Your task to perform on an android device: Open display settings Image 0: 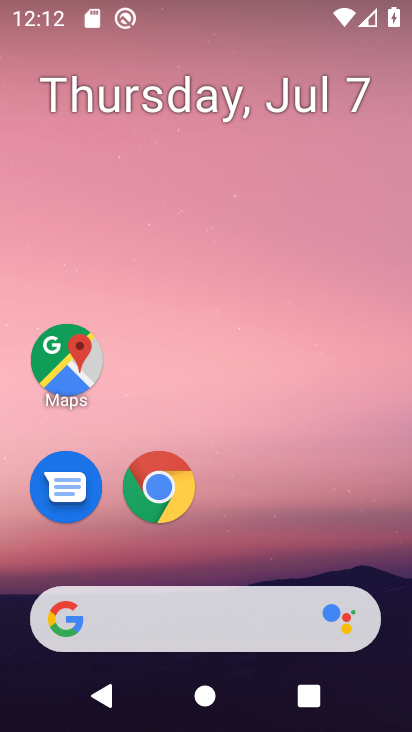
Step 0: drag from (304, 531) to (328, 134)
Your task to perform on an android device: Open display settings Image 1: 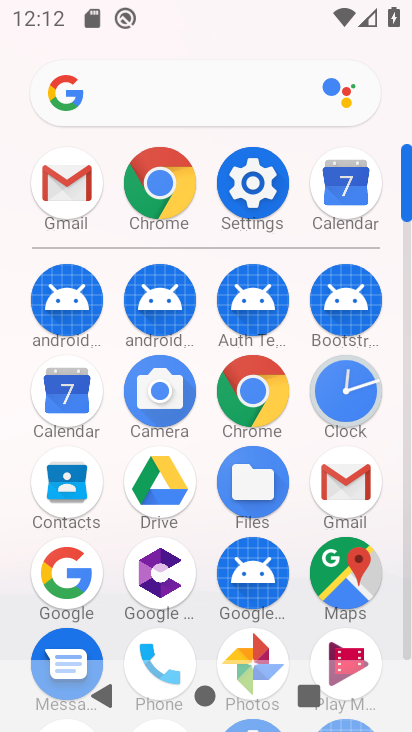
Step 1: click (251, 183)
Your task to perform on an android device: Open display settings Image 2: 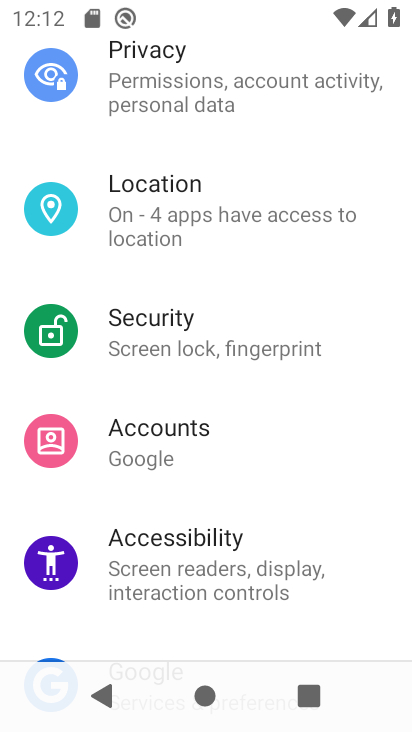
Step 2: drag from (346, 270) to (374, 457)
Your task to perform on an android device: Open display settings Image 3: 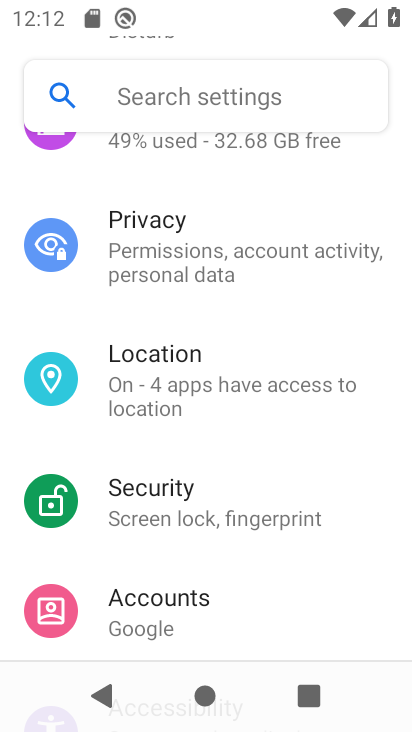
Step 3: drag from (352, 301) to (366, 457)
Your task to perform on an android device: Open display settings Image 4: 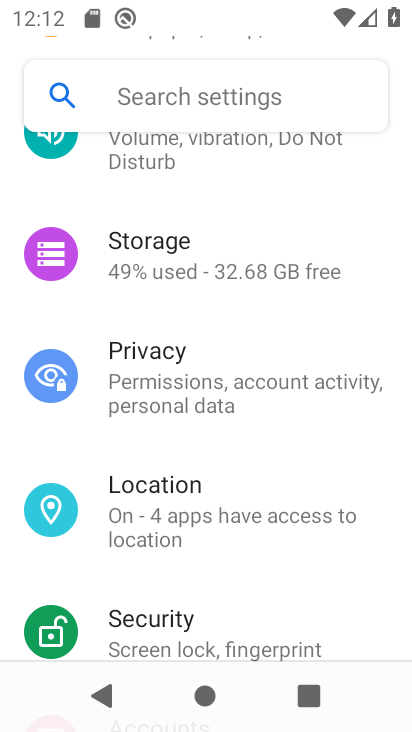
Step 4: drag from (352, 205) to (355, 384)
Your task to perform on an android device: Open display settings Image 5: 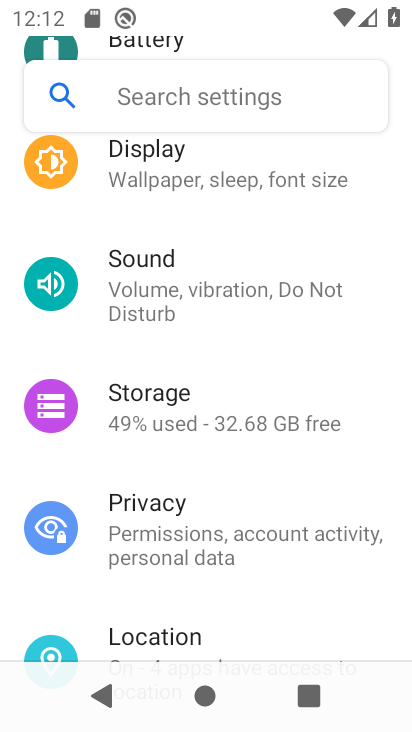
Step 5: drag from (356, 237) to (366, 419)
Your task to perform on an android device: Open display settings Image 6: 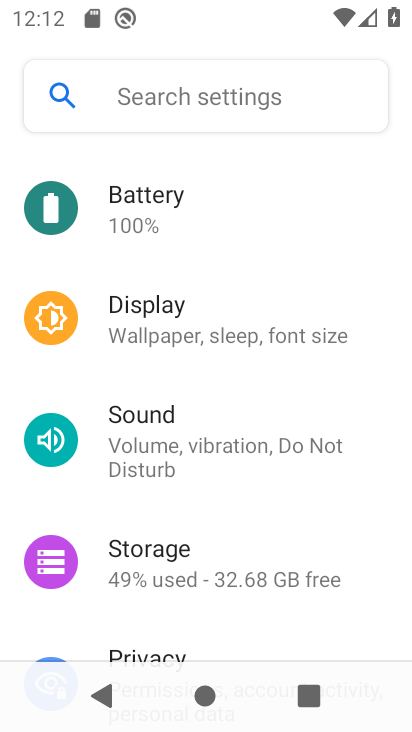
Step 6: drag from (346, 253) to (354, 406)
Your task to perform on an android device: Open display settings Image 7: 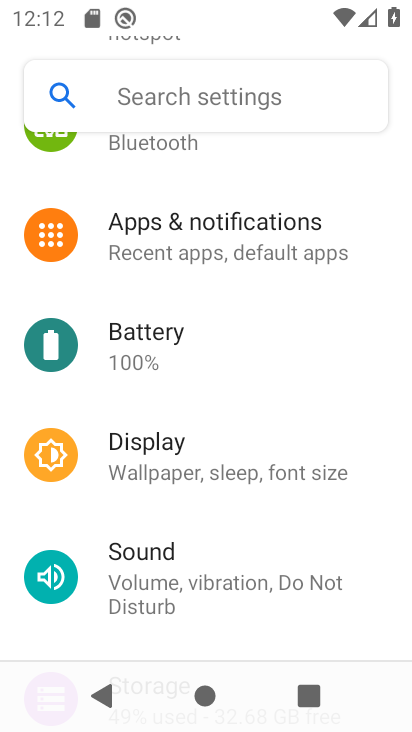
Step 7: click (285, 480)
Your task to perform on an android device: Open display settings Image 8: 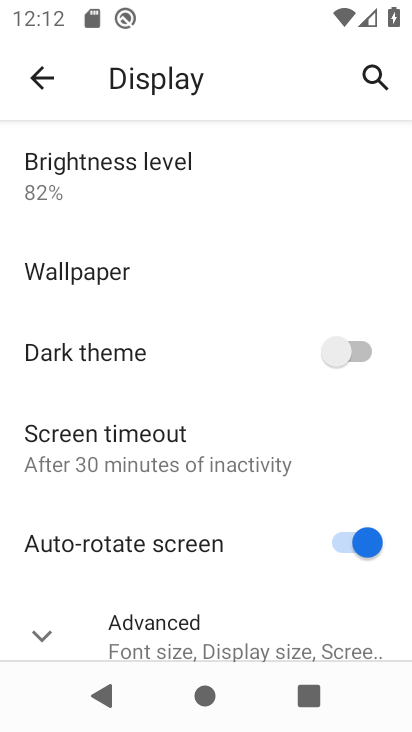
Step 8: task complete